Your task to perform on an android device: Install the Yelp app Image 0: 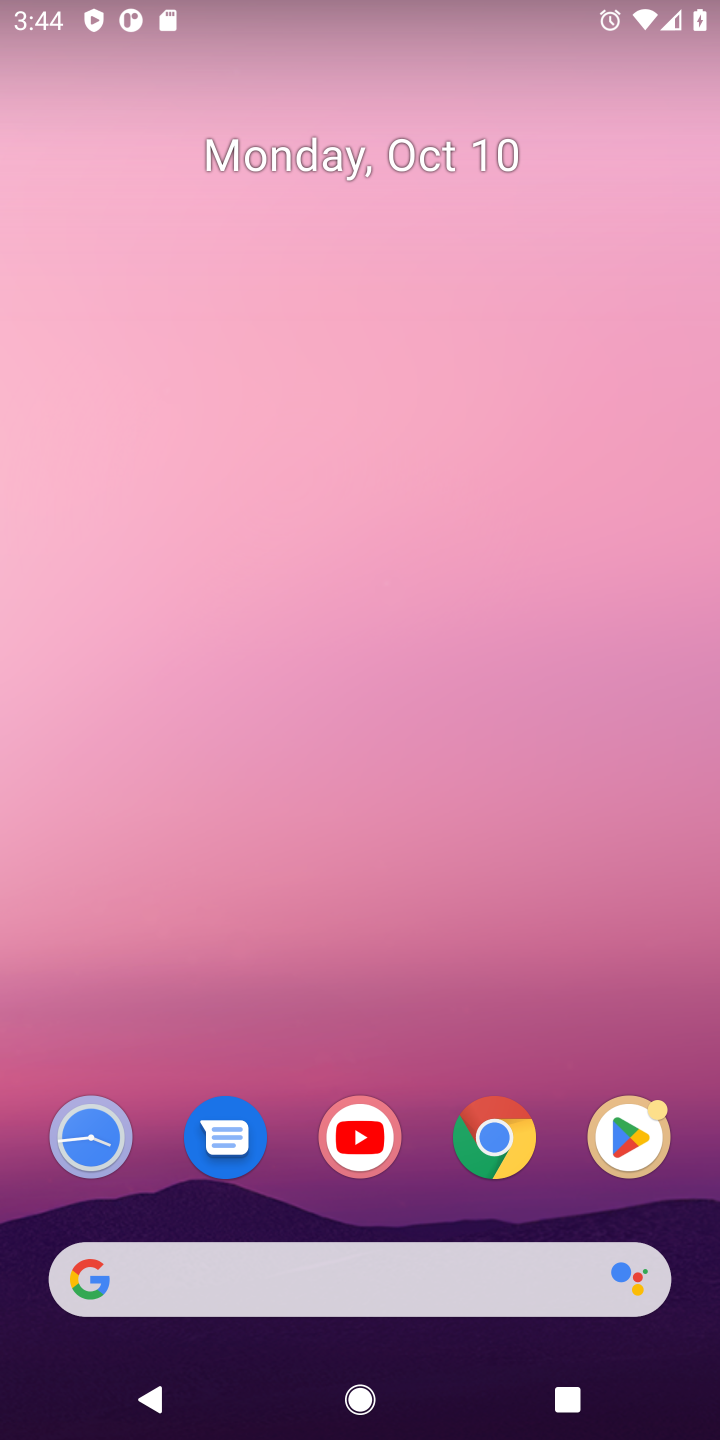
Step 0: click (662, 1139)
Your task to perform on an android device: Install the Yelp app Image 1: 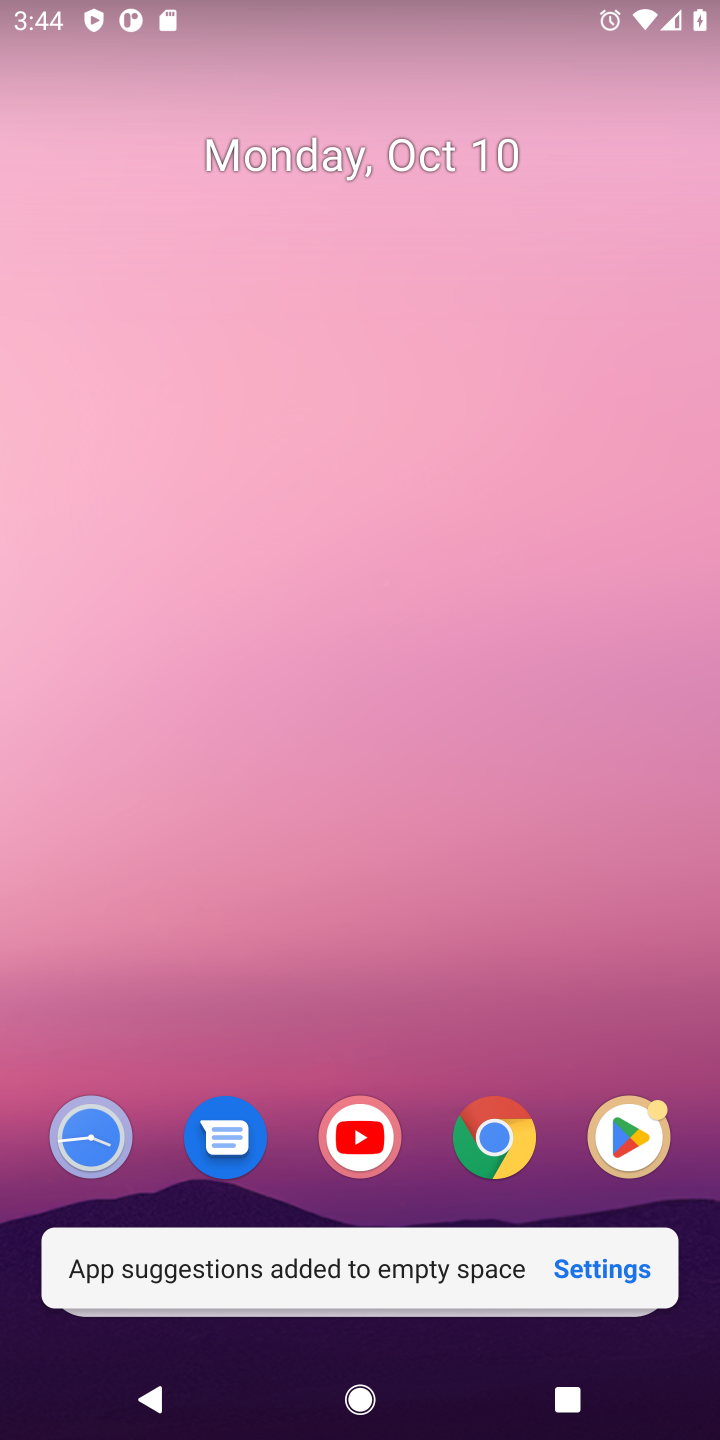
Step 1: click (636, 1164)
Your task to perform on an android device: Install the Yelp app Image 2: 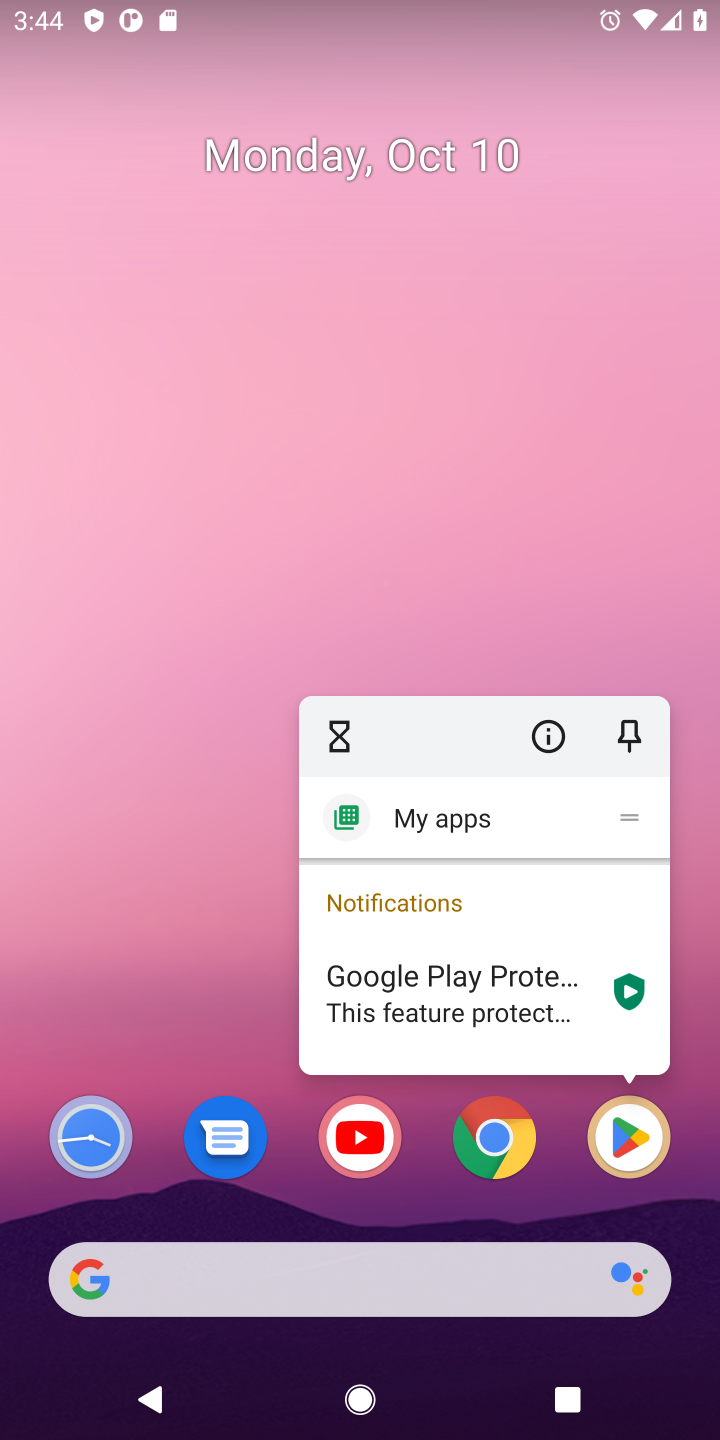
Step 2: click (639, 1125)
Your task to perform on an android device: Install the Yelp app Image 3: 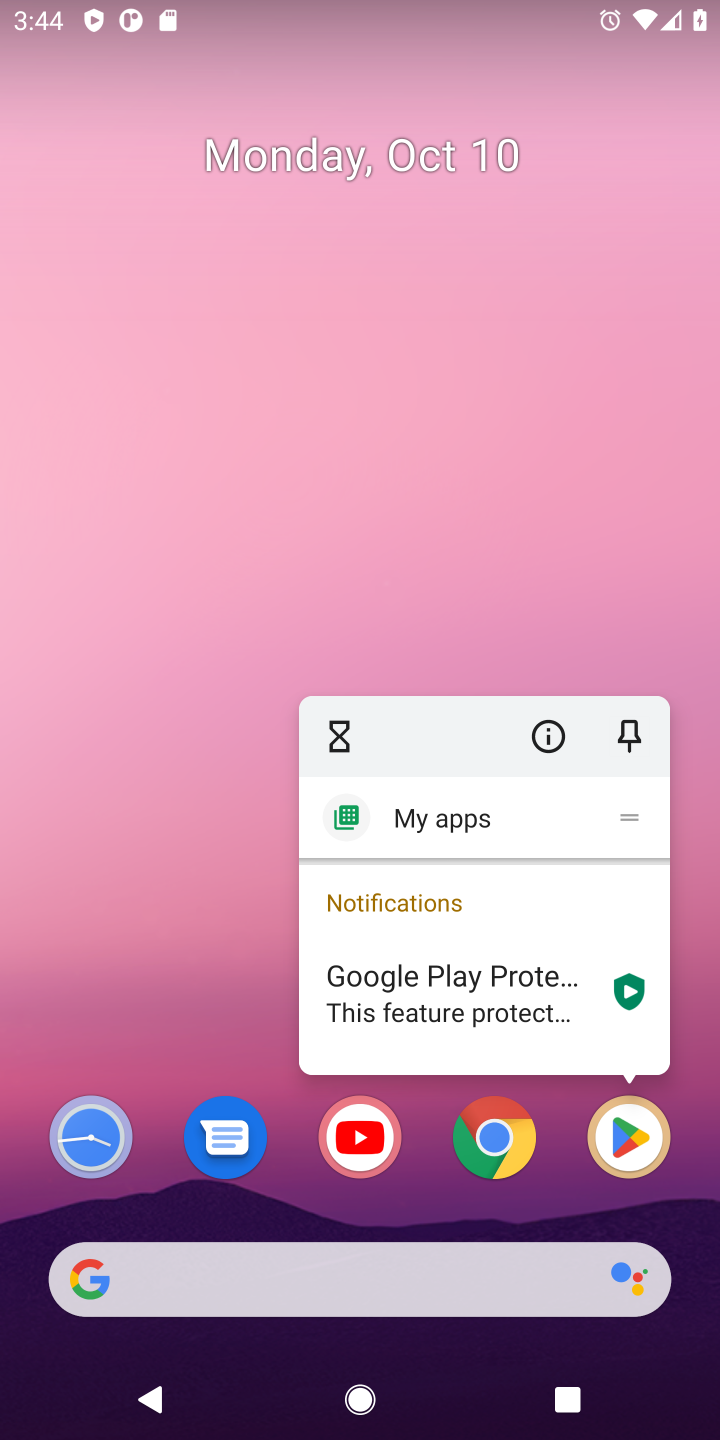
Step 3: click (617, 1157)
Your task to perform on an android device: Install the Yelp app Image 4: 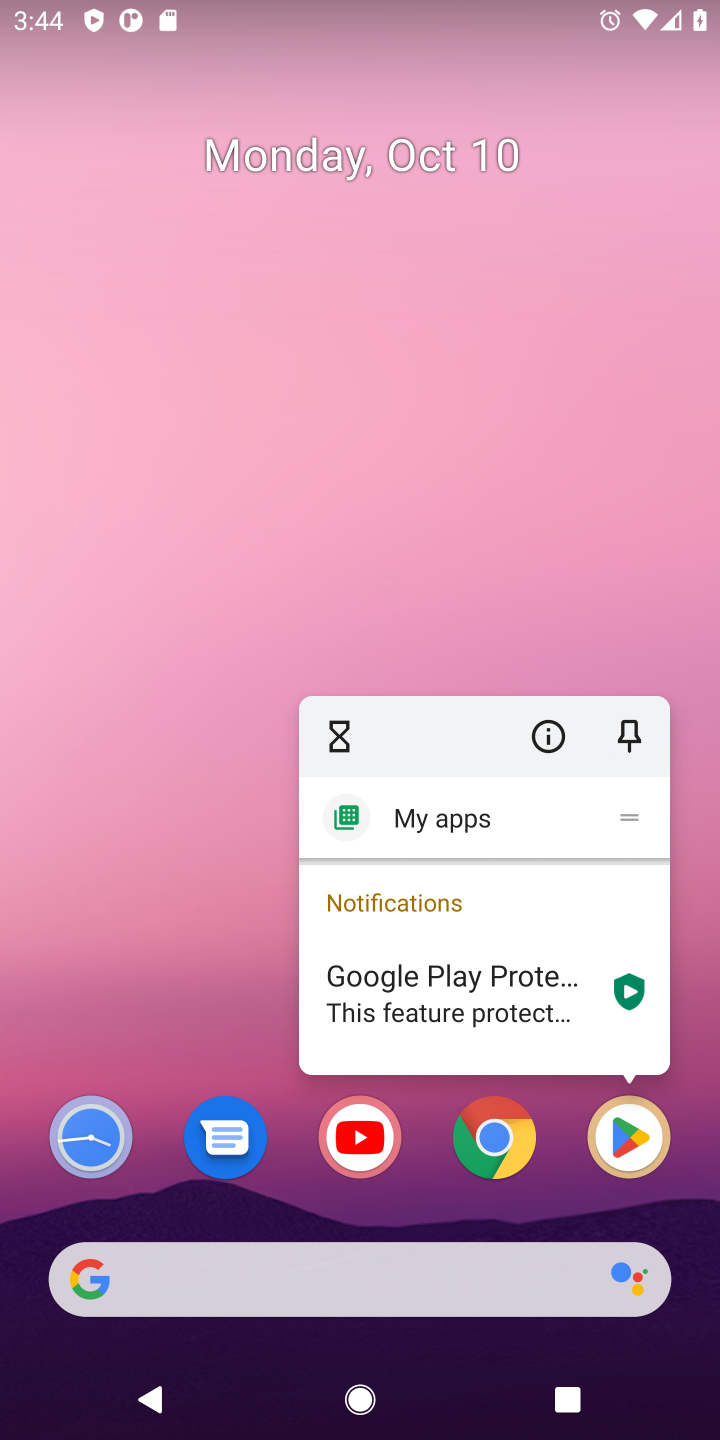
Step 4: click (650, 1136)
Your task to perform on an android device: Install the Yelp app Image 5: 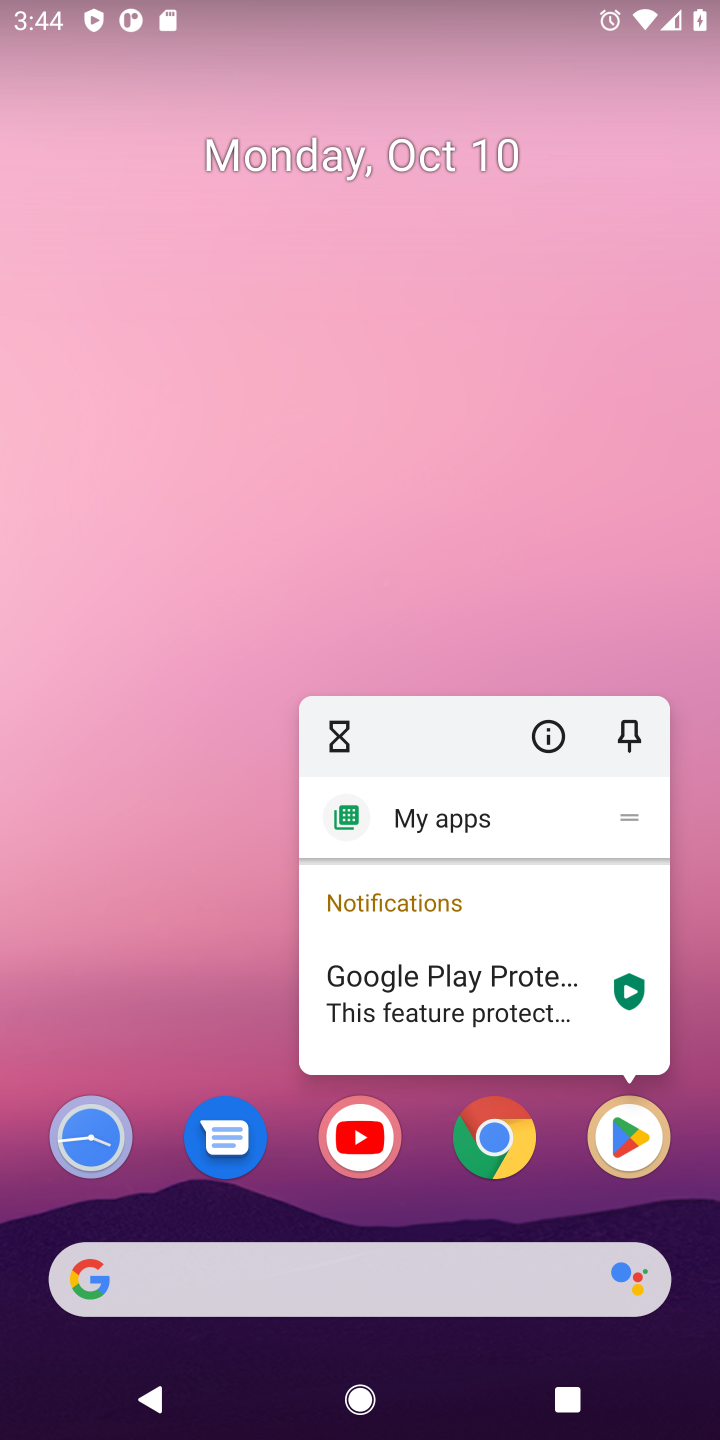
Step 5: click (632, 1146)
Your task to perform on an android device: Install the Yelp app Image 6: 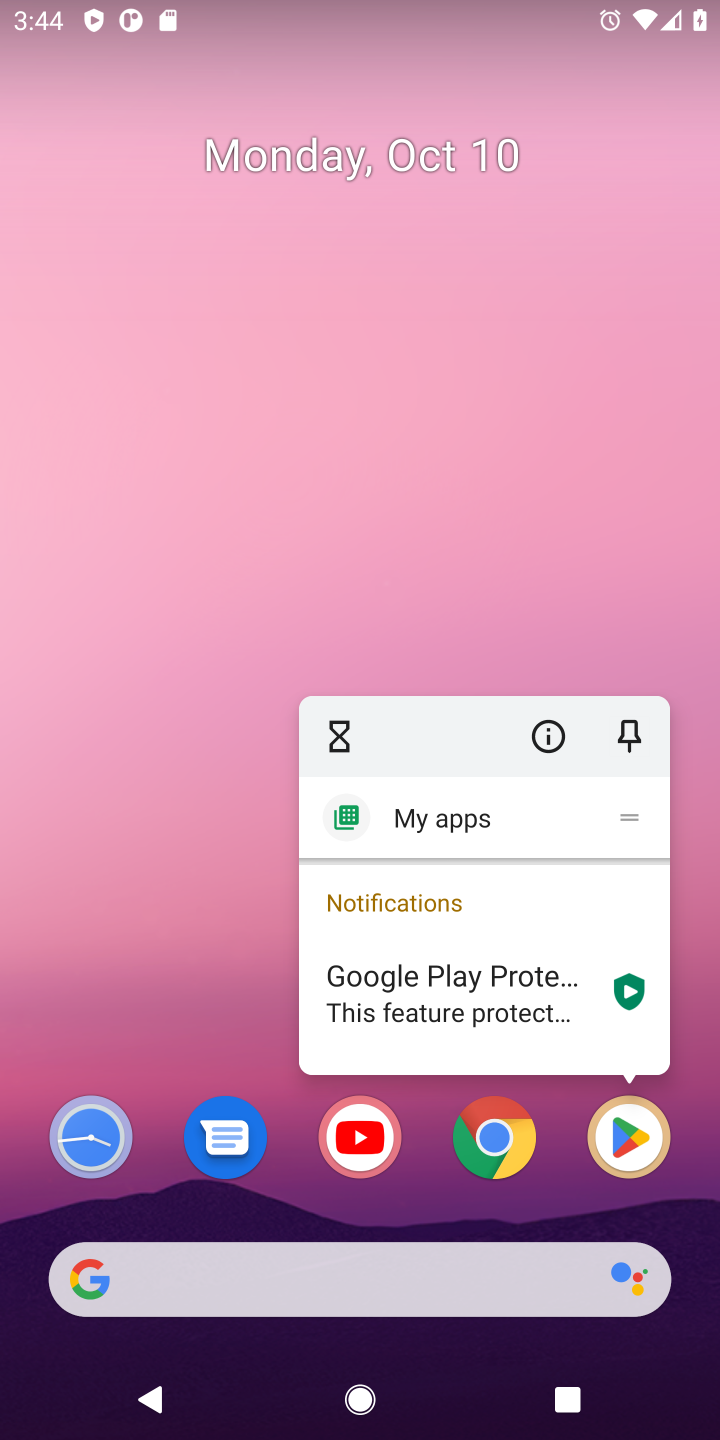
Step 6: click (627, 1109)
Your task to perform on an android device: Install the Yelp app Image 7: 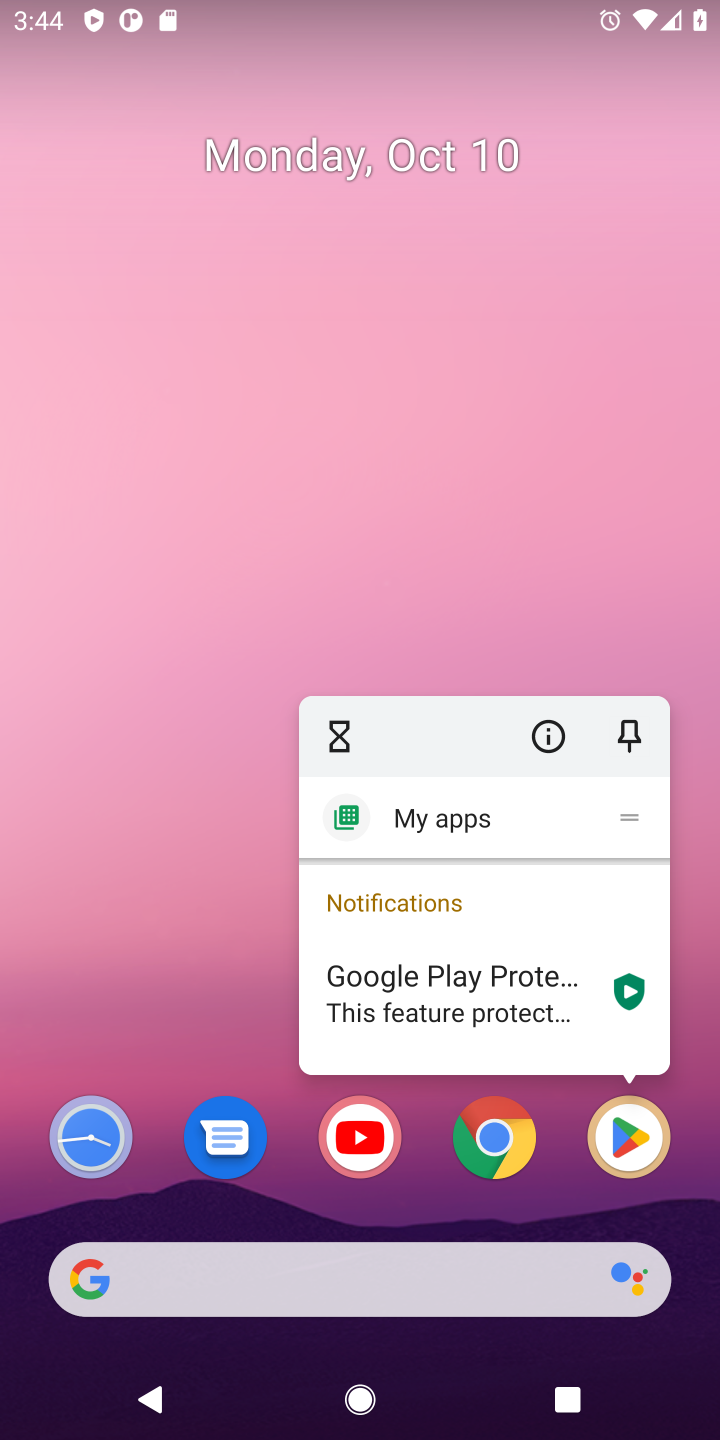
Step 7: click (625, 1150)
Your task to perform on an android device: Install the Yelp app Image 8: 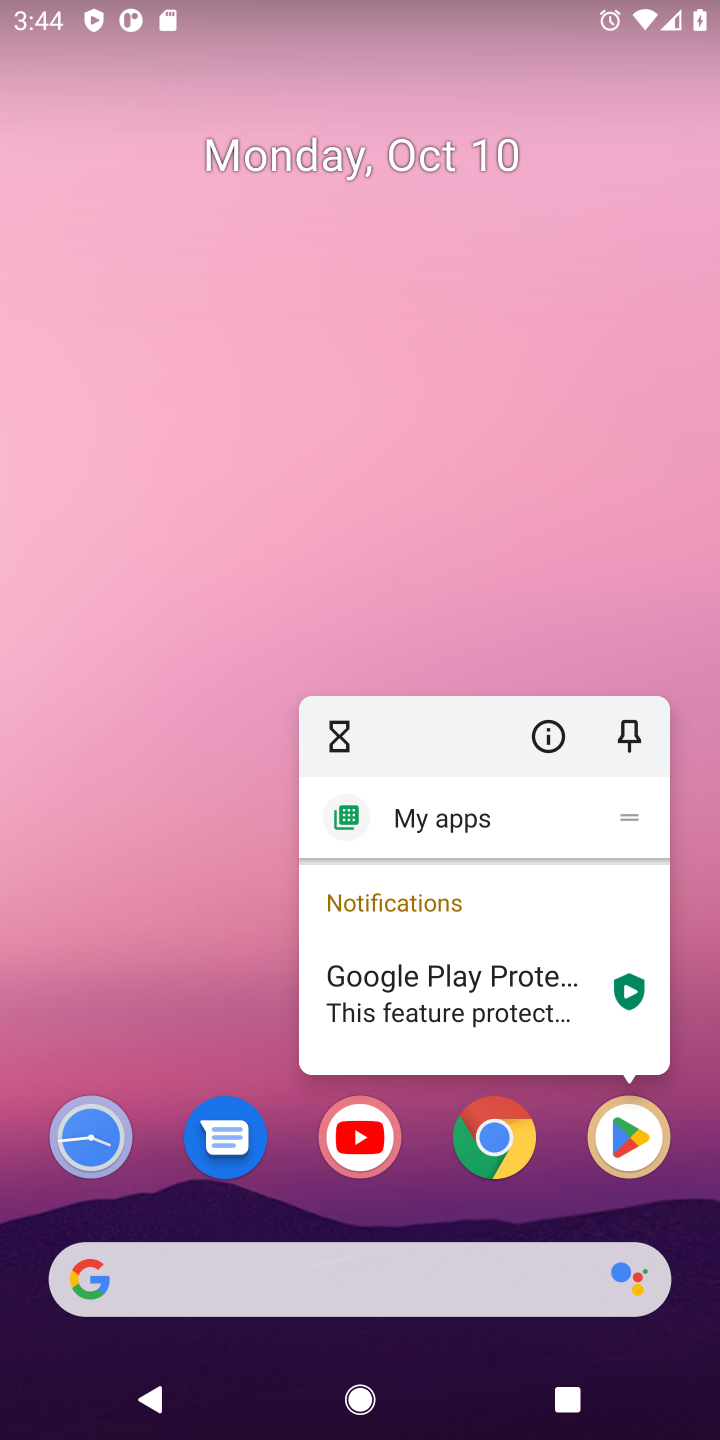
Step 8: click (425, 512)
Your task to perform on an android device: Install the Yelp app Image 9: 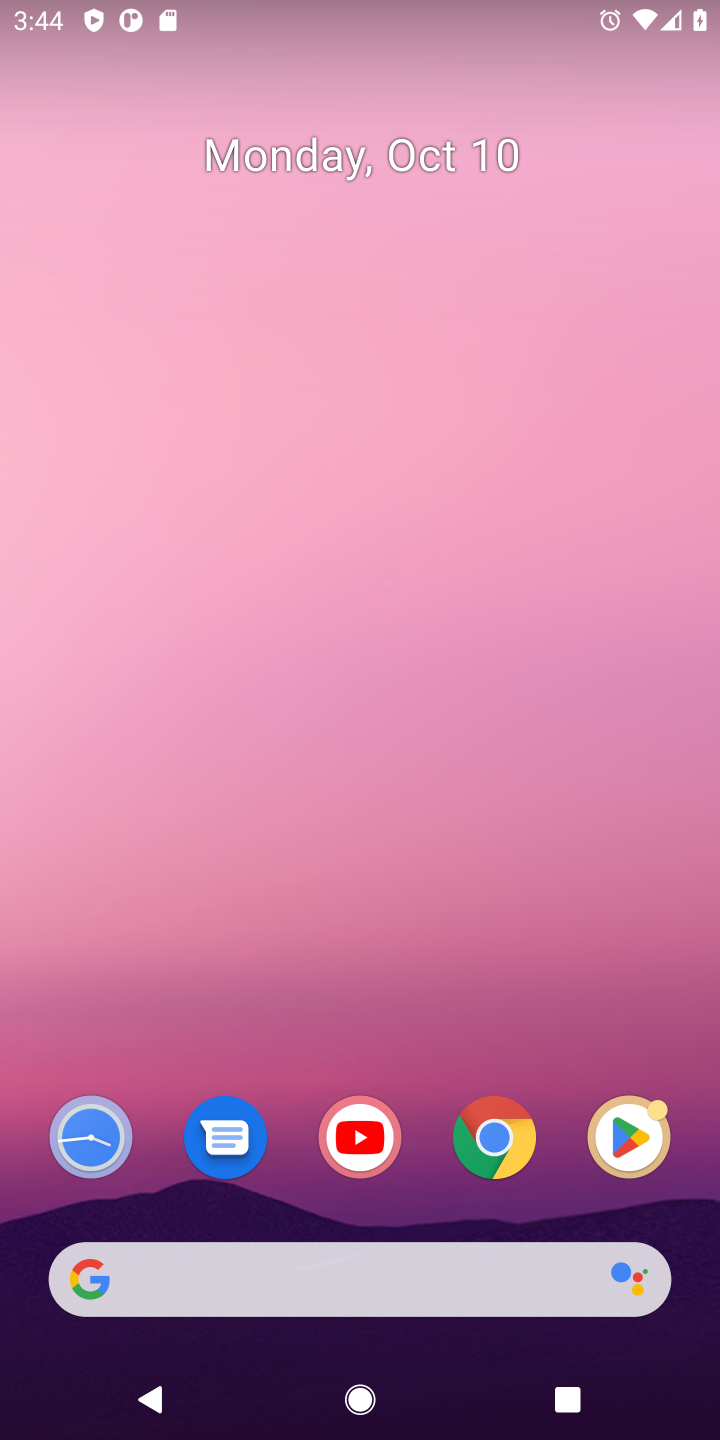
Step 9: click (640, 1158)
Your task to perform on an android device: Install the Yelp app Image 10: 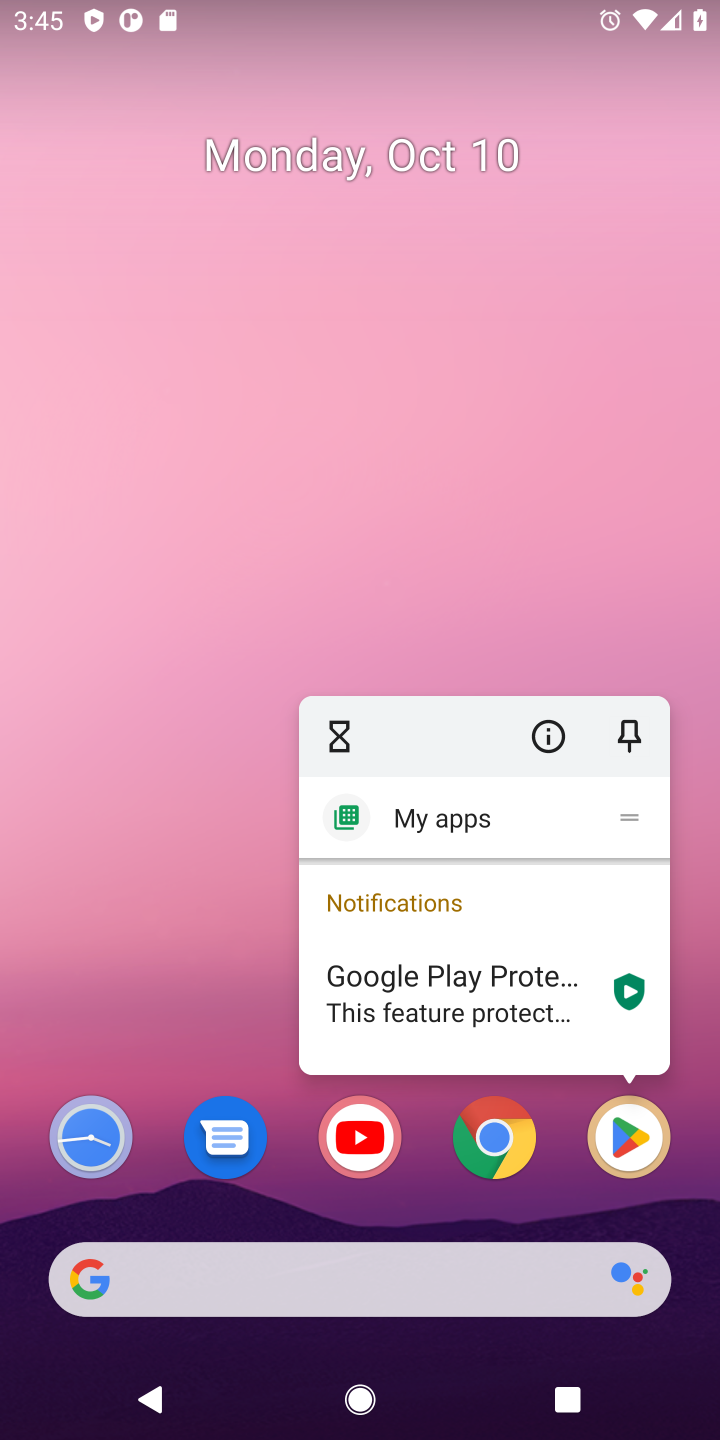
Step 10: click (608, 1124)
Your task to perform on an android device: Install the Yelp app Image 11: 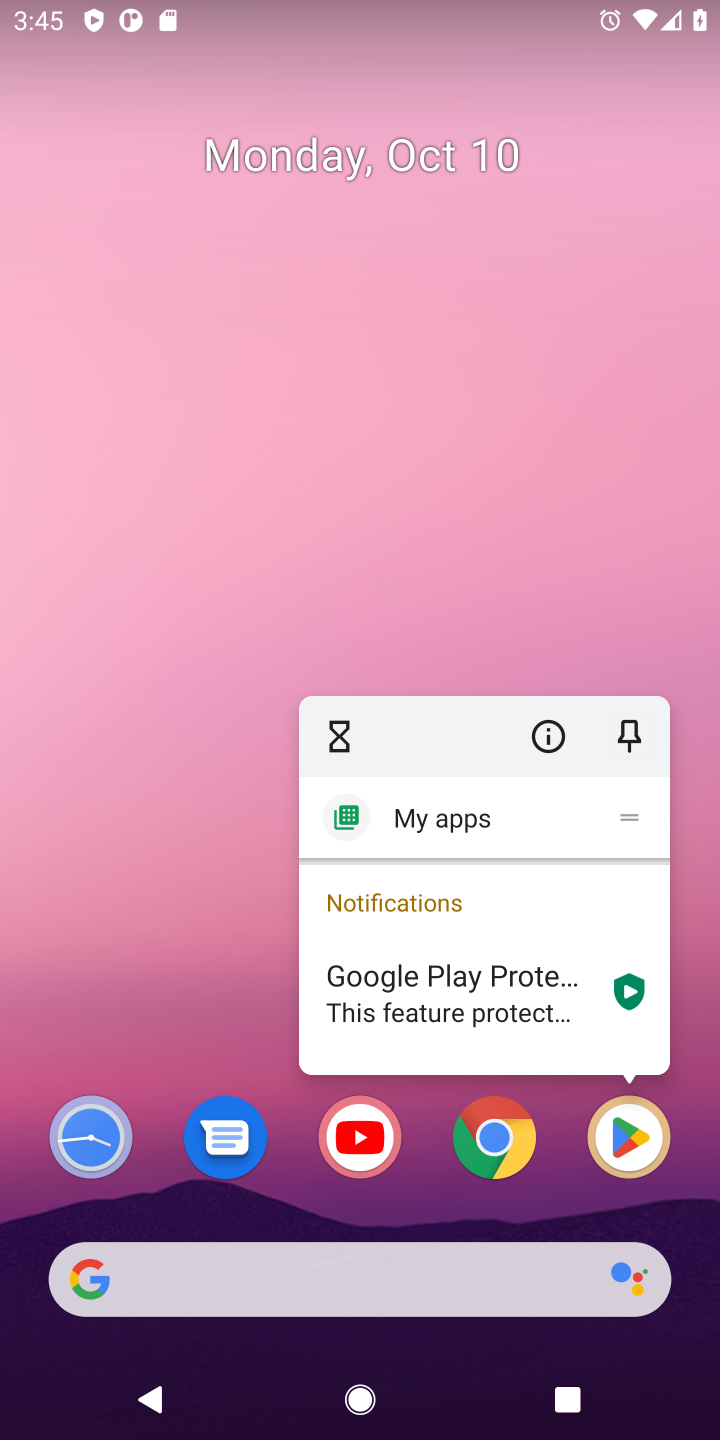
Step 11: click (633, 1153)
Your task to perform on an android device: Install the Yelp app Image 12: 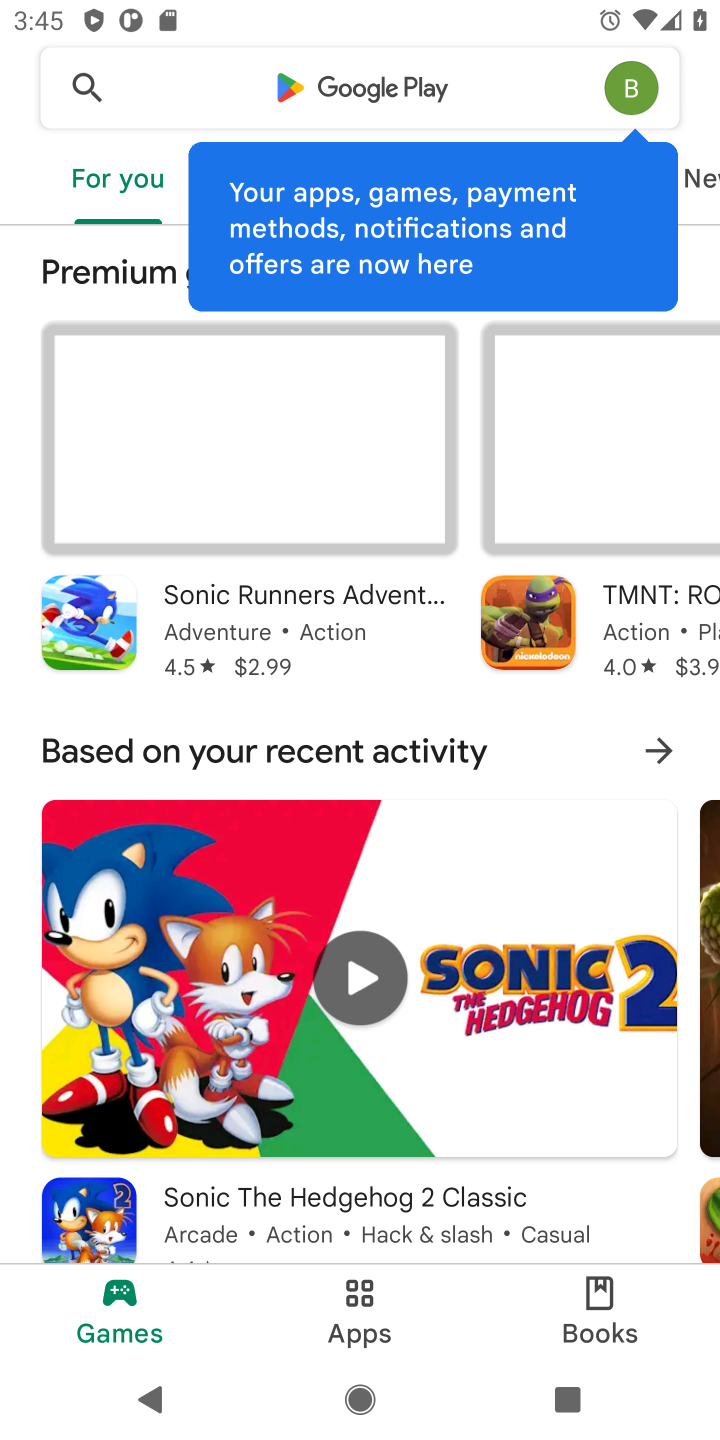
Step 12: click (452, 66)
Your task to perform on an android device: Install the Yelp app Image 13: 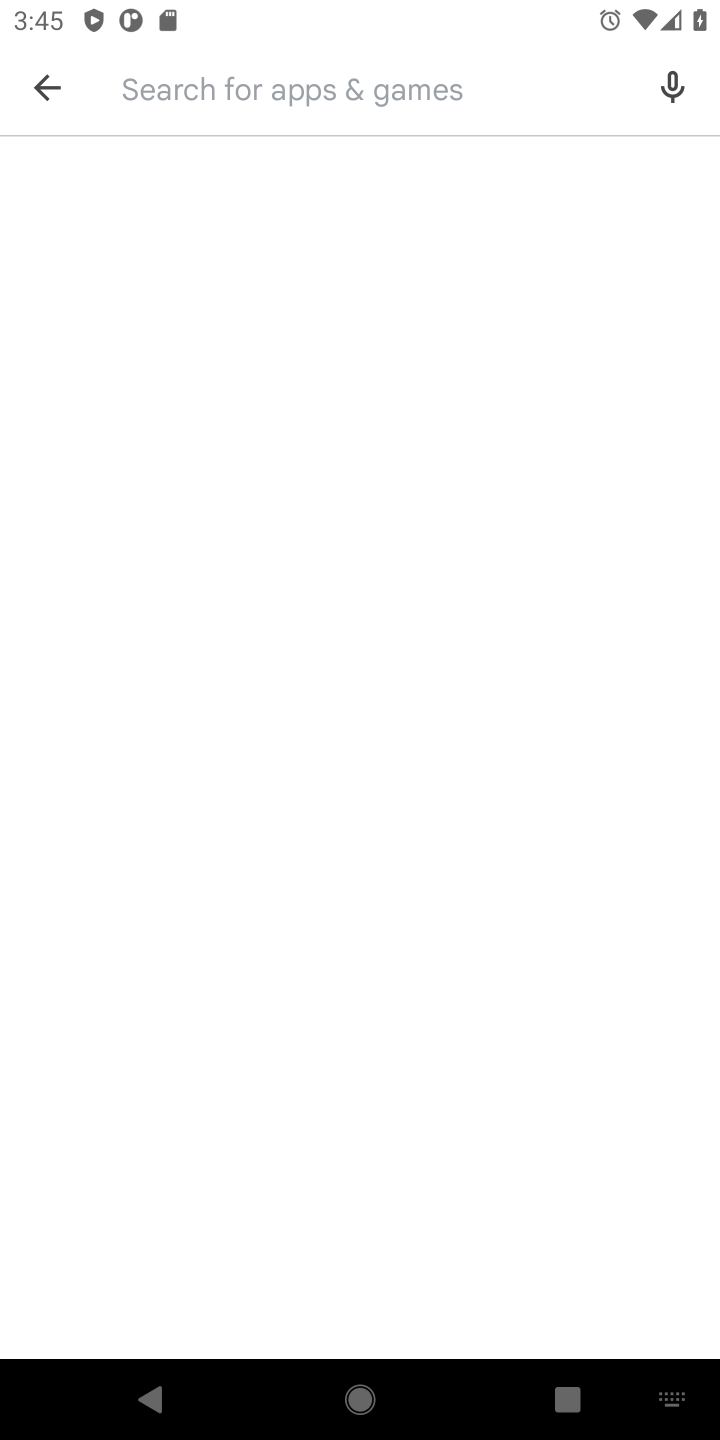
Step 13: click (353, 80)
Your task to perform on an android device: Install the Yelp app Image 14: 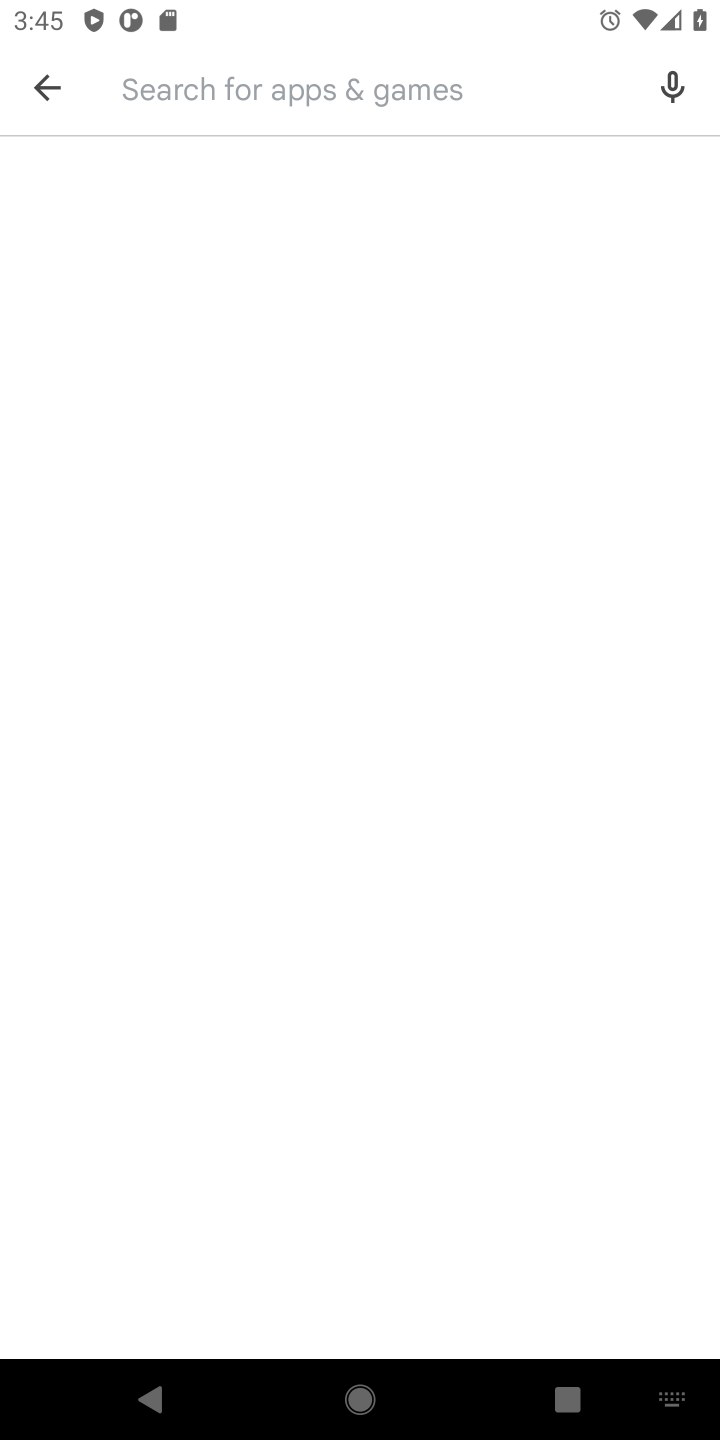
Step 14: type "yelp"
Your task to perform on an android device: Install the Yelp app Image 15: 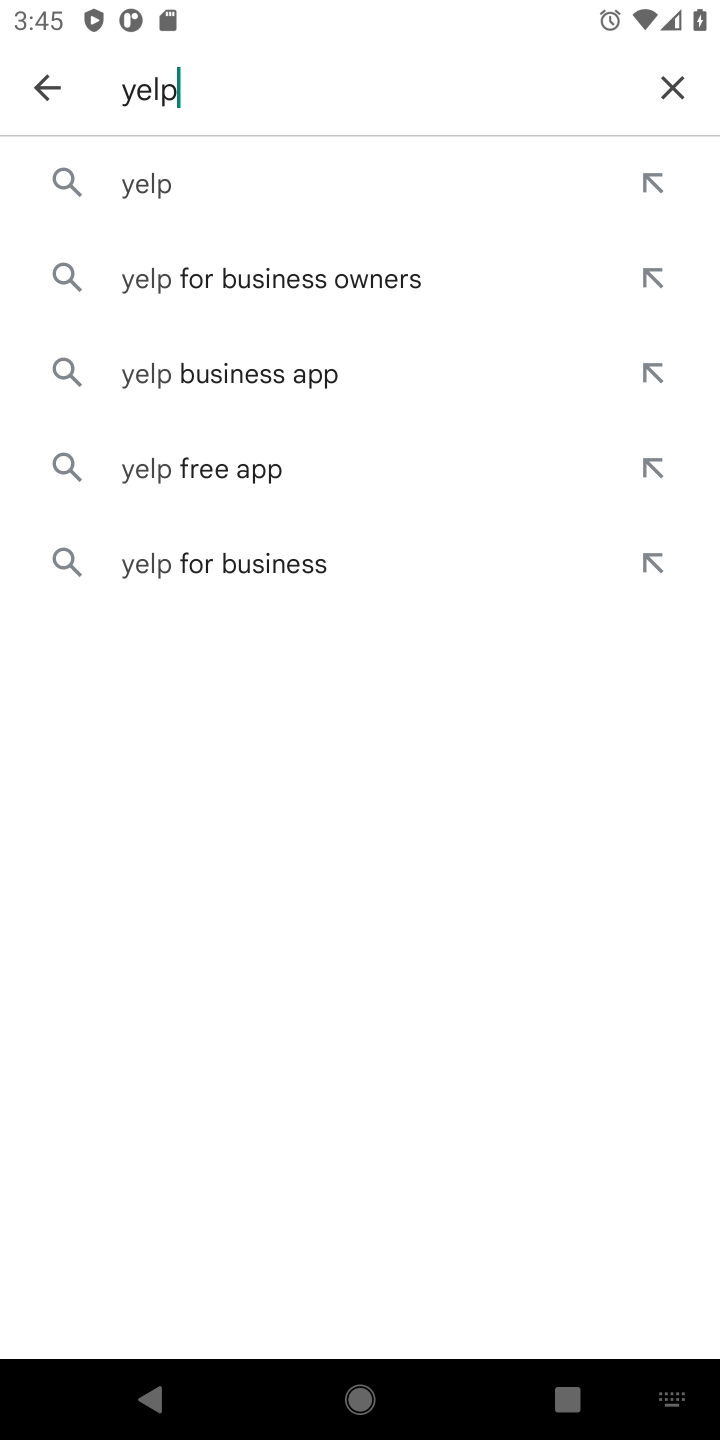
Step 15: type ""
Your task to perform on an android device: Install the Yelp app Image 16: 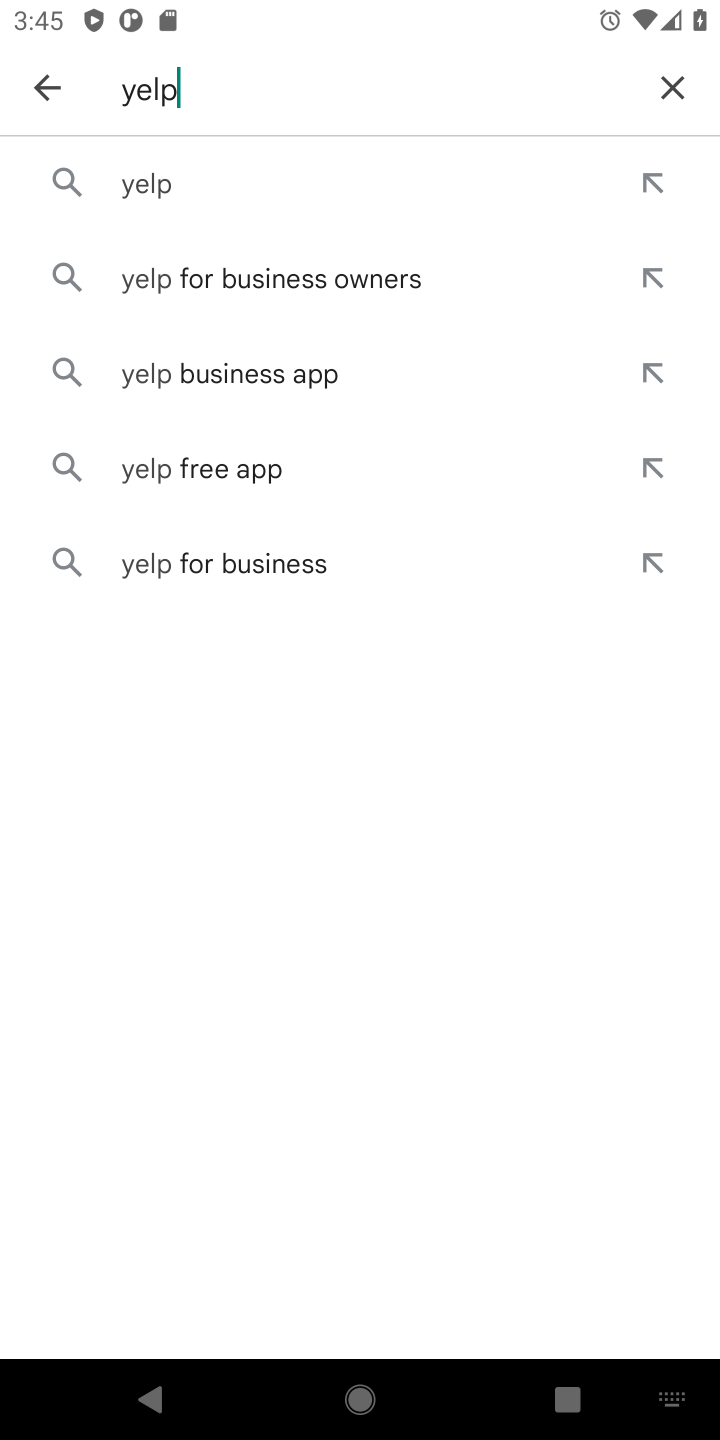
Step 16: click (396, 161)
Your task to perform on an android device: Install the Yelp app Image 17: 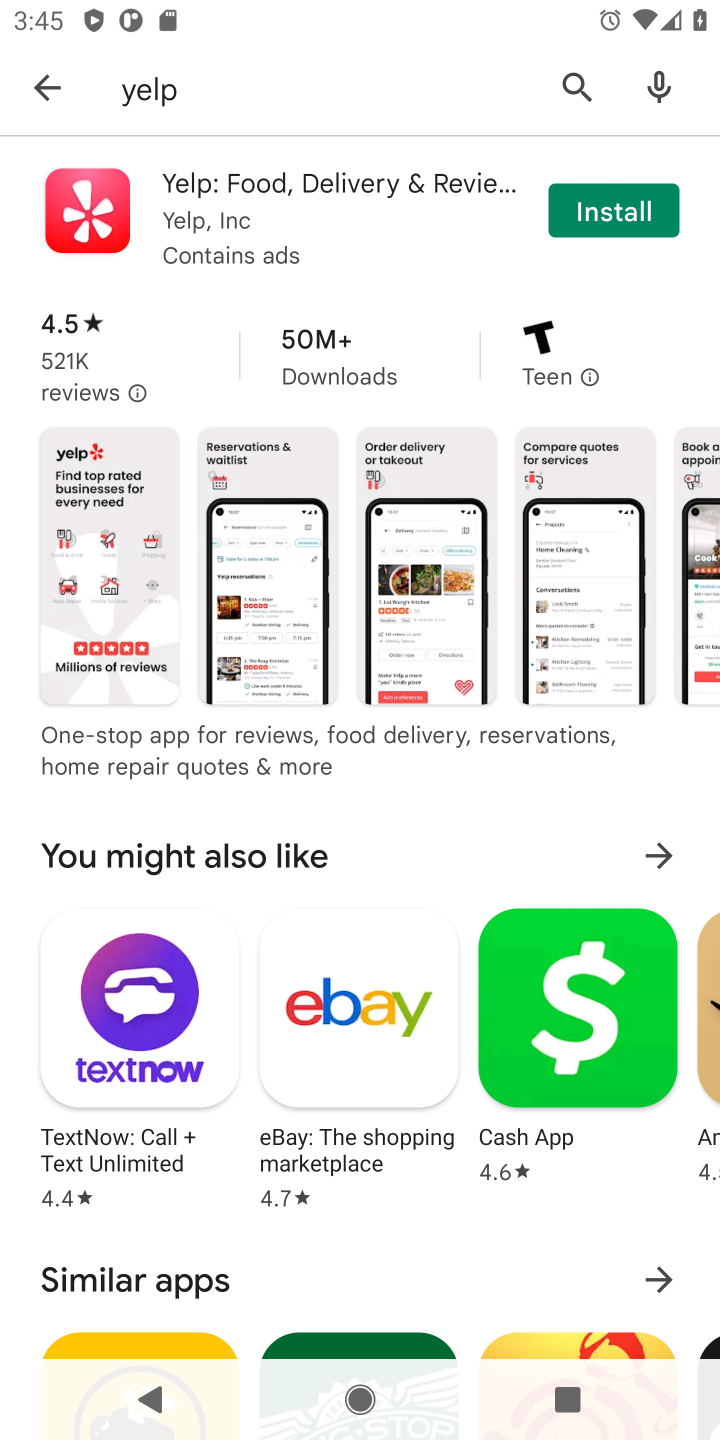
Step 17: click (589, 233)
Your task to perform on an android device: Install the Yelp app Image 18: 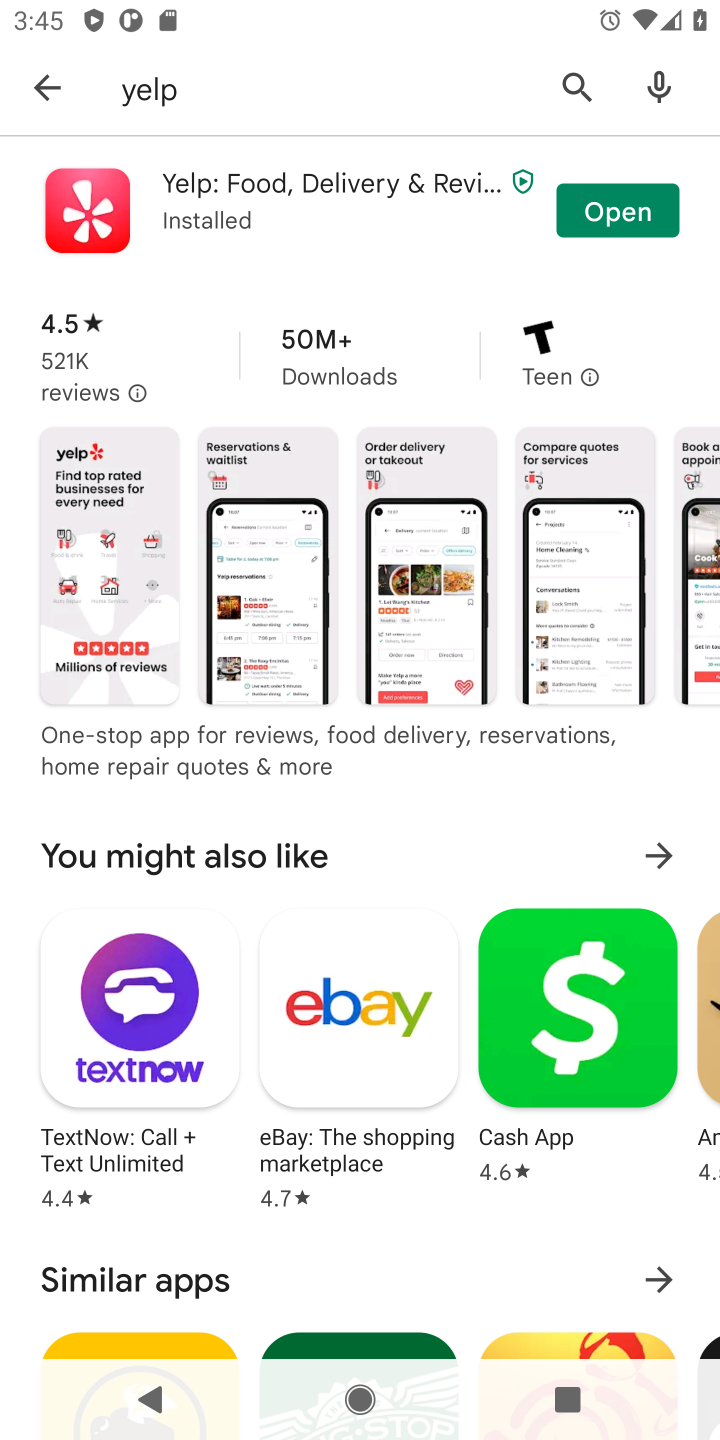
Step 18: click (569, 203)
Your task to perform on an android device: Install the Yelp app Image 19: 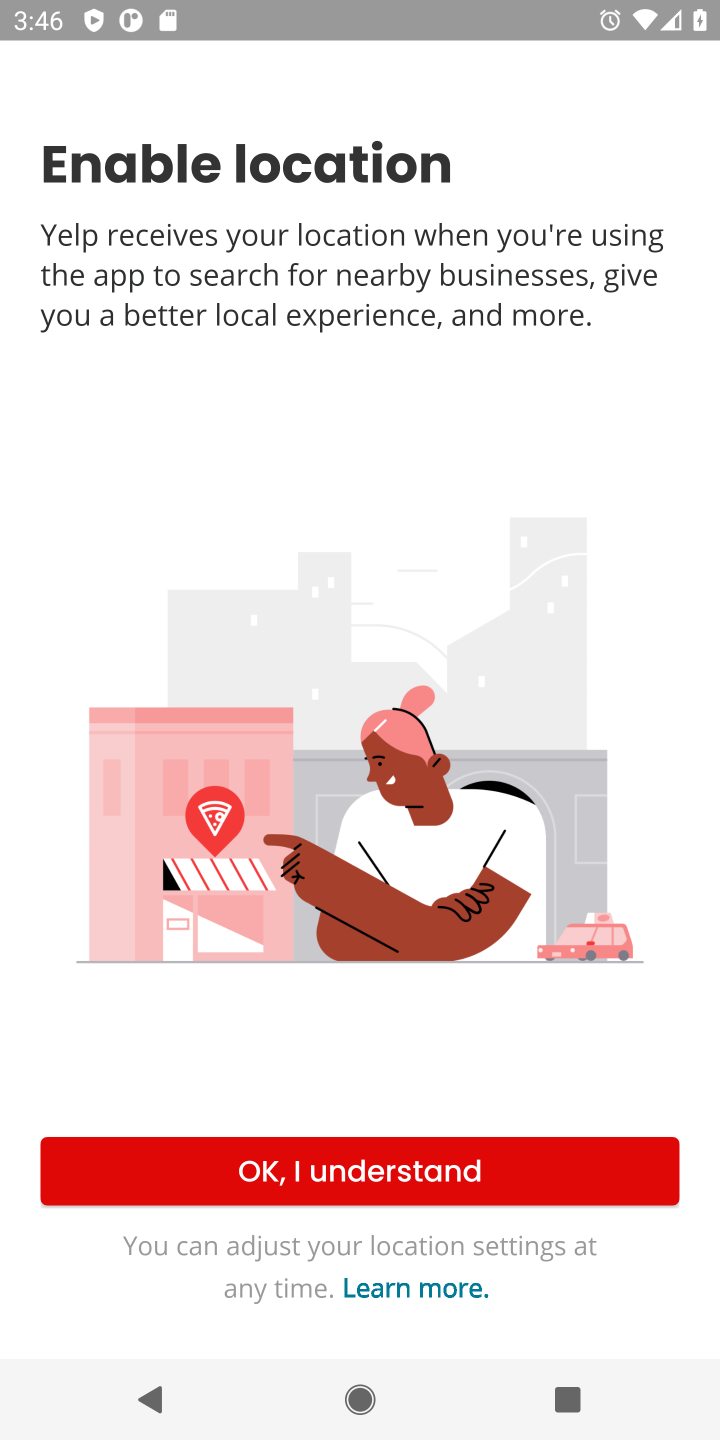
Step 19: click (620, 1167)
Your task to perform on an android device: Install the Yelp app Image 20: 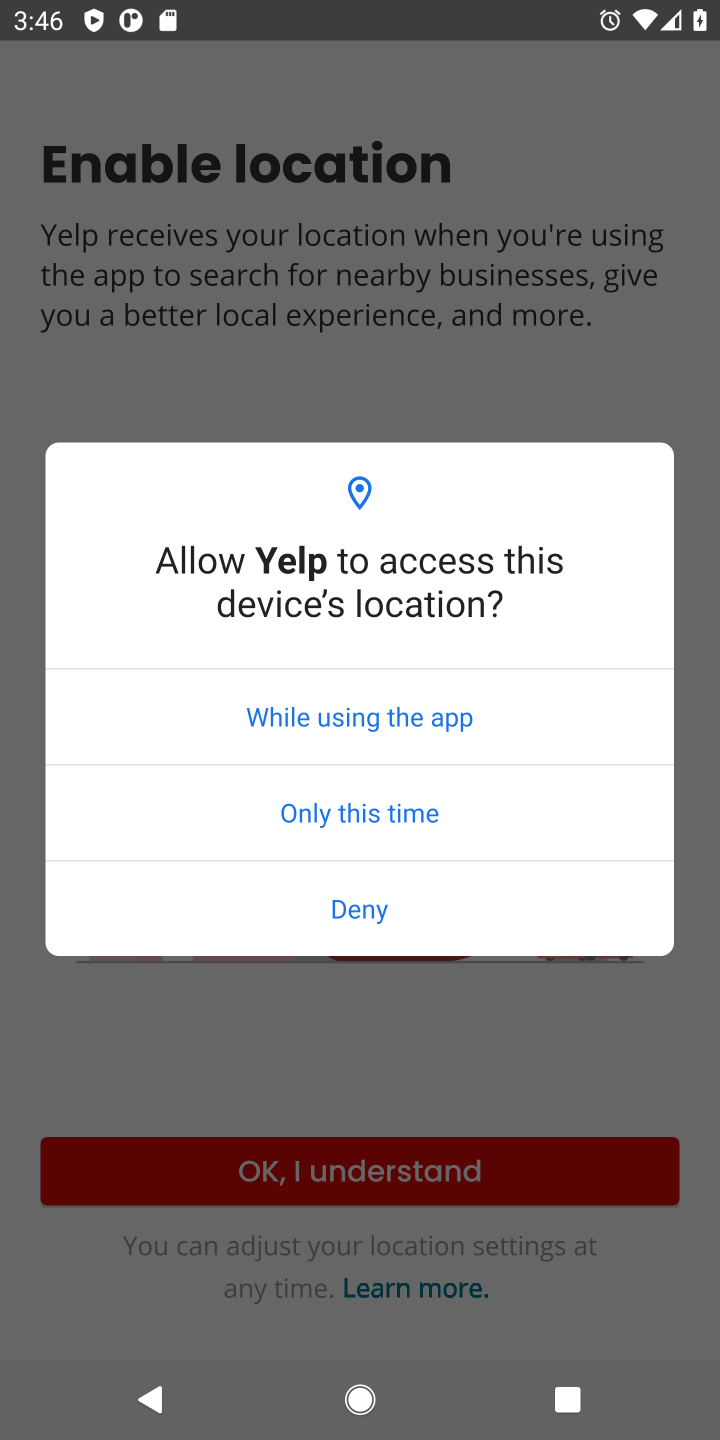
Step 20: click (492, 809)
Your task to perform on an android device: Install the Yelp app Image 21: 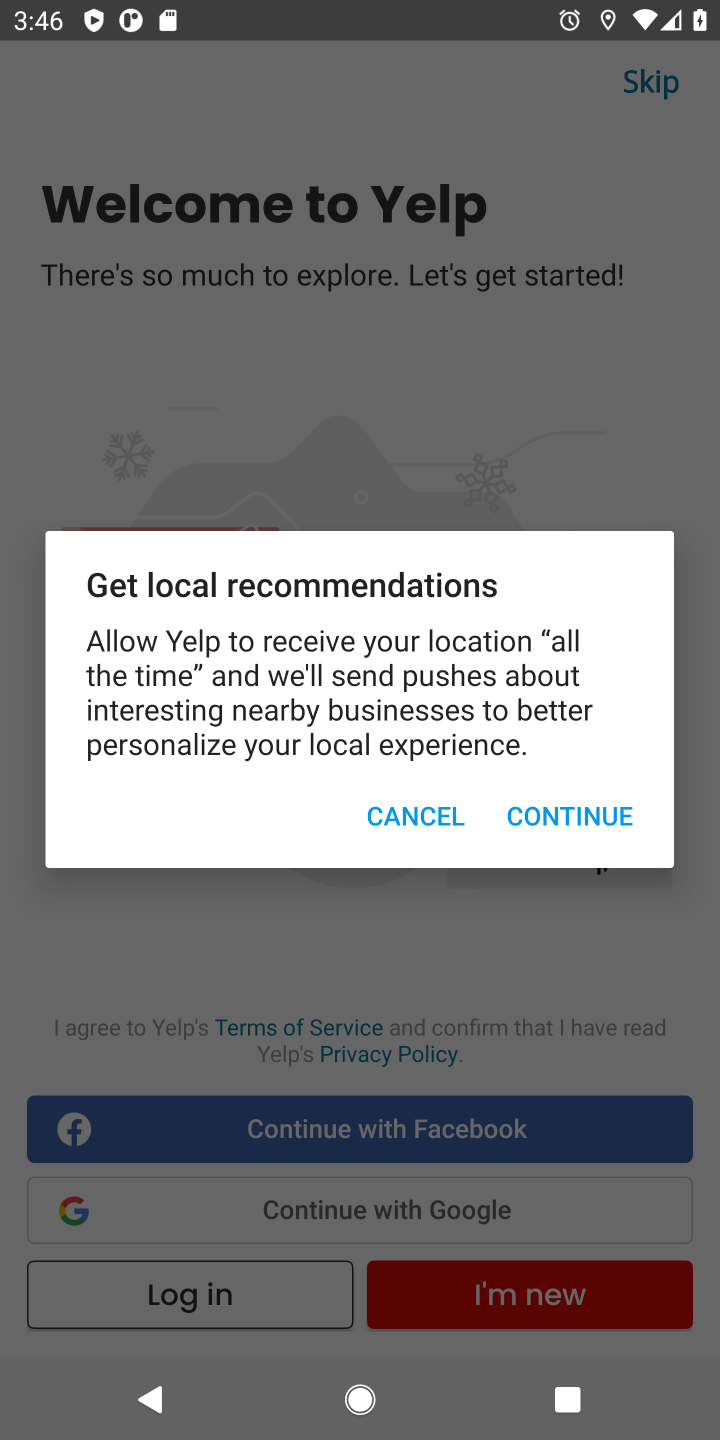
Step 21: click (538, 807)
Your task to perform on an android device: Install the Yelp app Image 22: 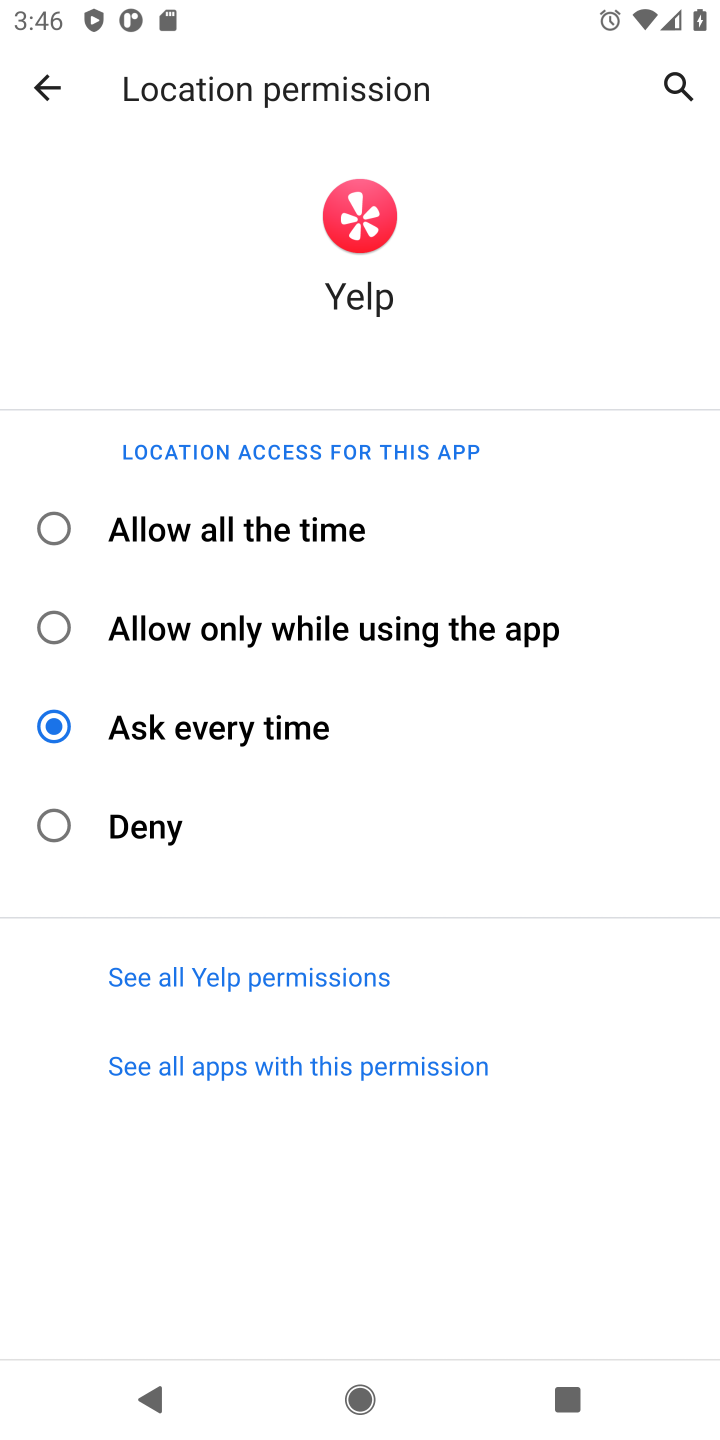
Step 22: click (325, 714)
Your task to perform on an android device: Install the Yelp app Image 23: 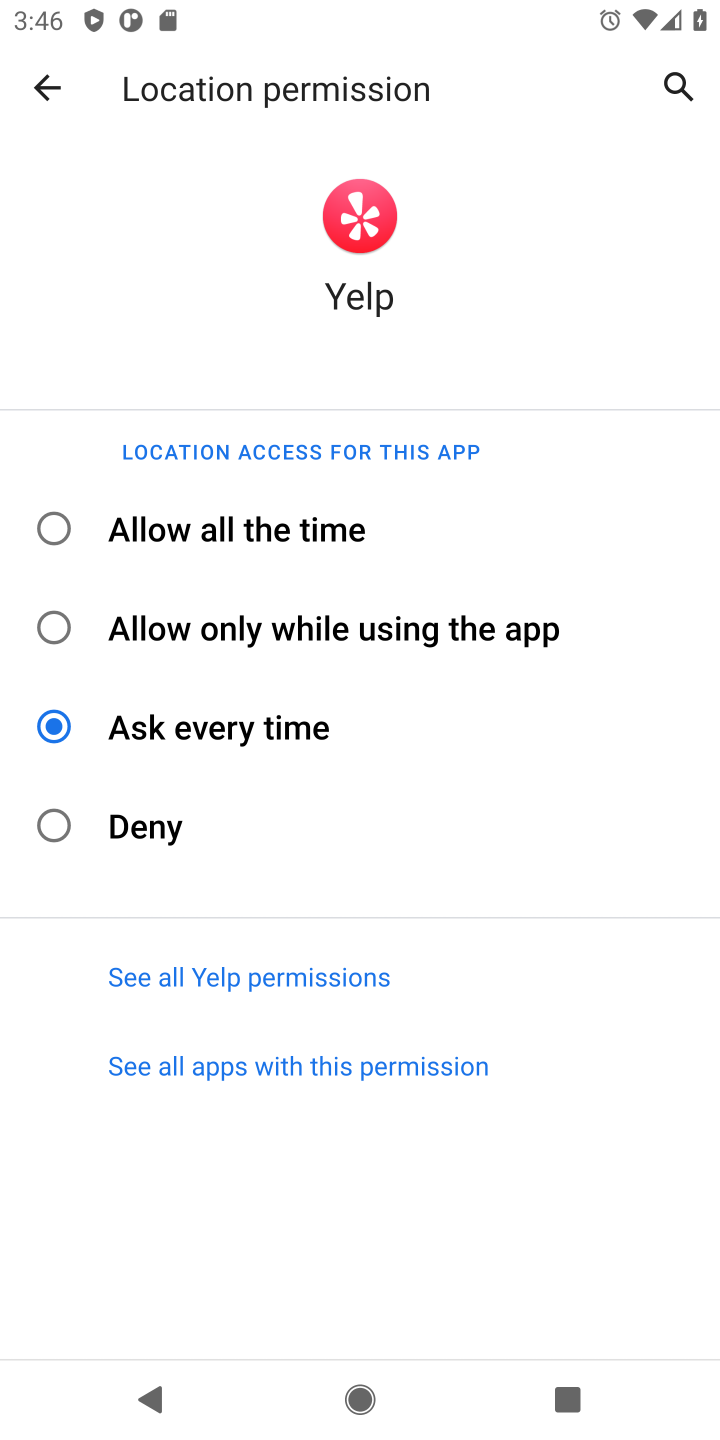
Step 23: click (60, 97)
Your task to perform on an android device: Install the Yelp app Image 24: 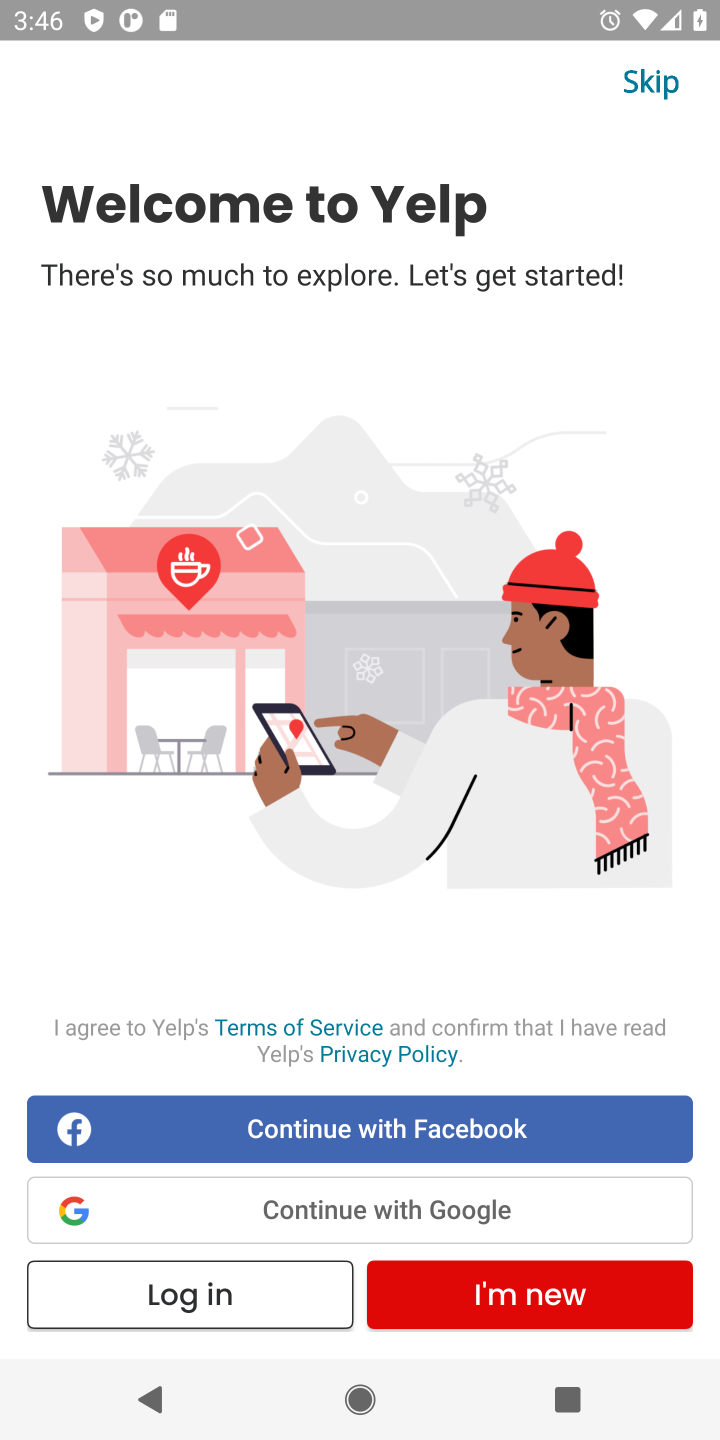
Step 24: click (652, 77)
Your task to perform on an android device: Install the Yelp app Image 25: 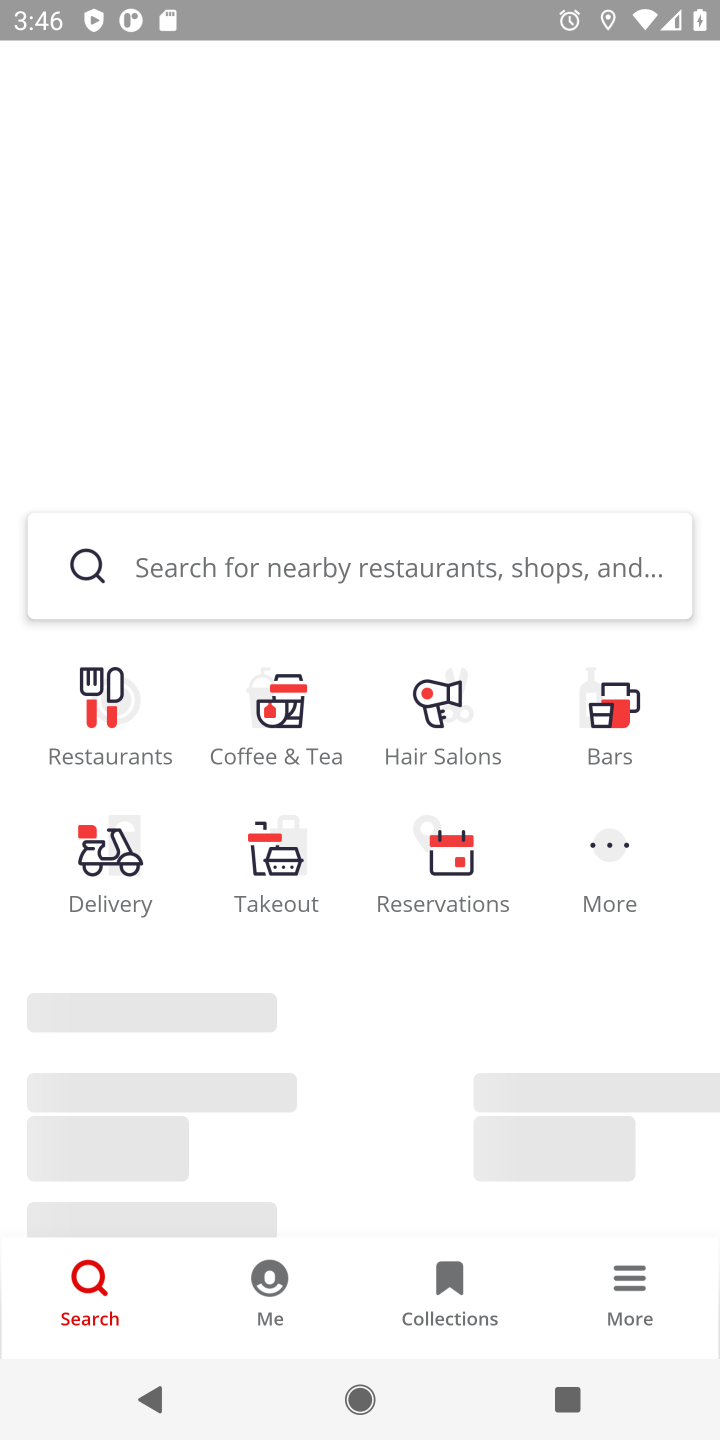
Step 25: drag from (391, 1028) to (378, 264)
Your task to perform on an android device: Install the Yelp app Image 26: 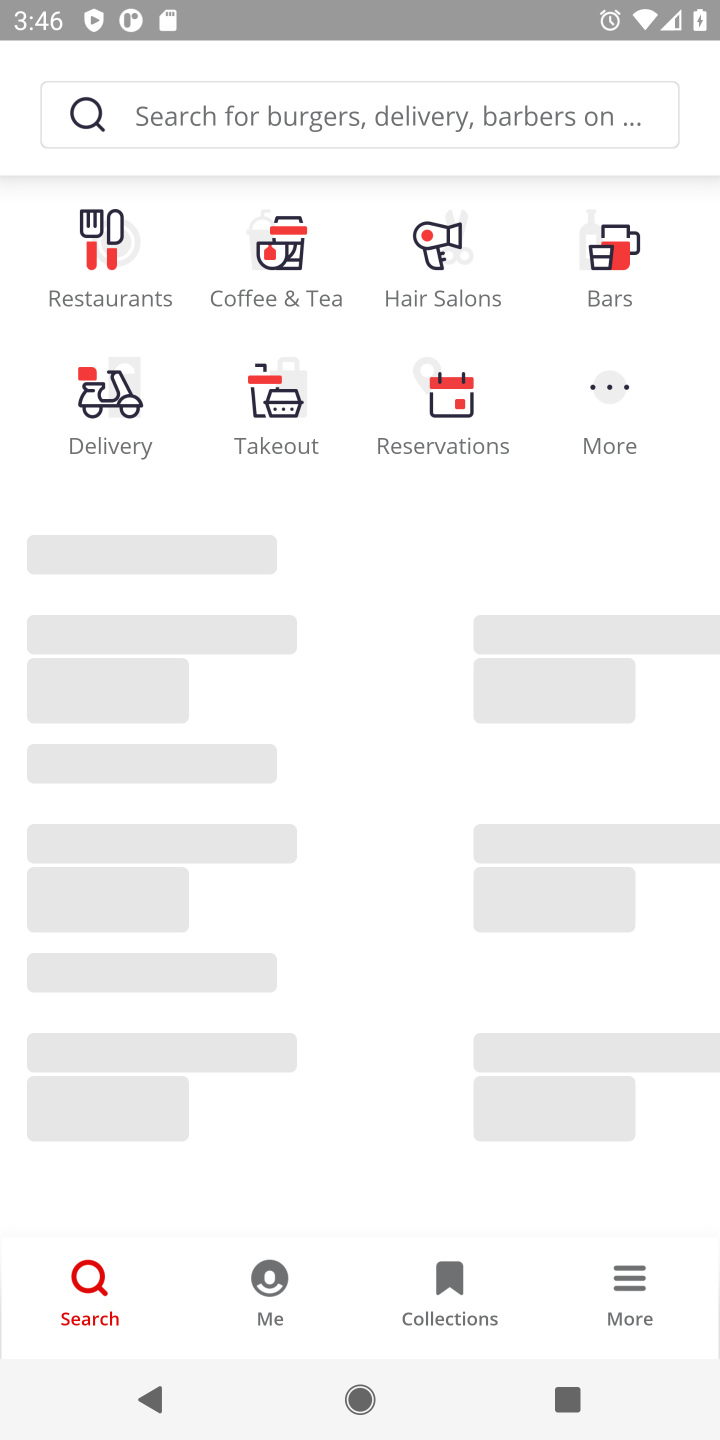
Step 26: click (85, 249)
Your task to perform on an android device: Install the Yelp app Image 27: 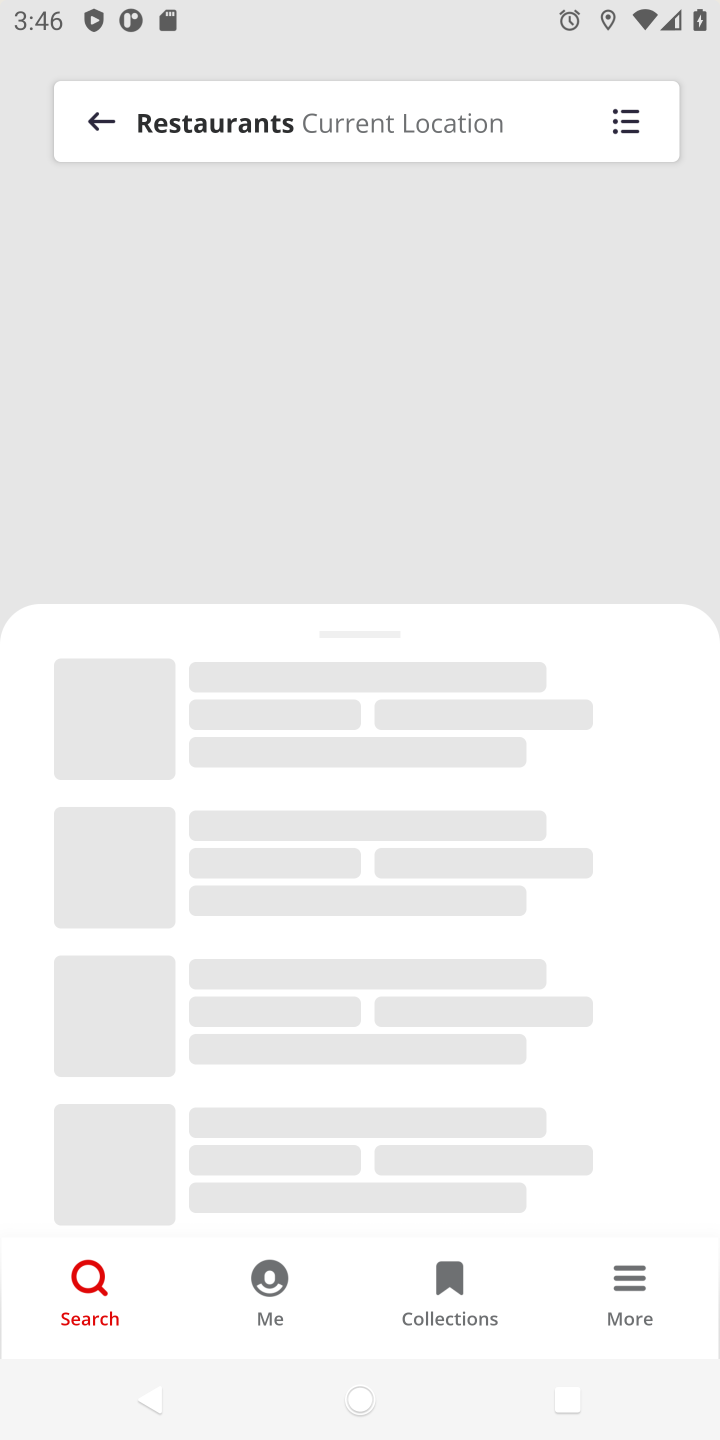
Step 27: drag from (355, 944) to (283, 408)
Your task to perform on an android device: Install the Yelp app Image 28: 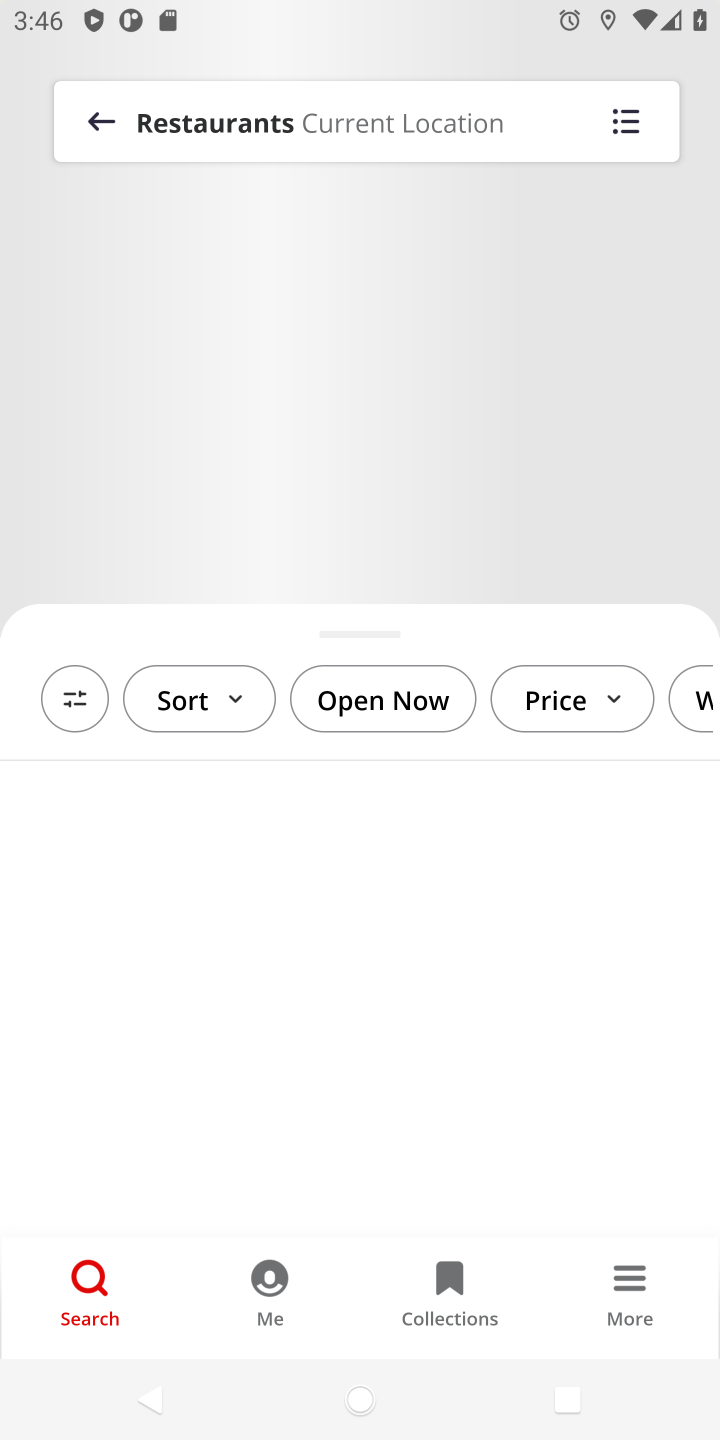
Step 28: click (263, 243)
Your task to perform on an android device: Install the Yelp app Image 29: 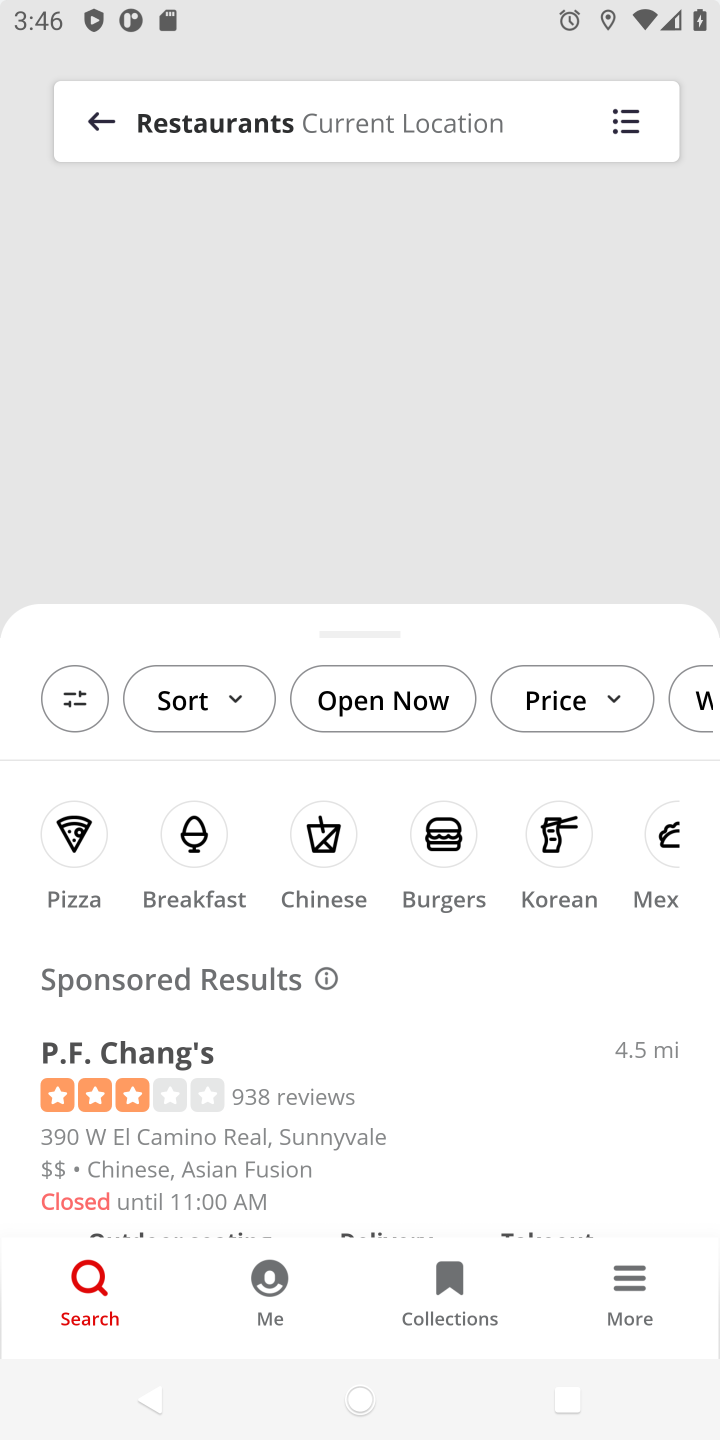
Step 29: task complete